Your task to perform on an android device: Open eBay Image 0: 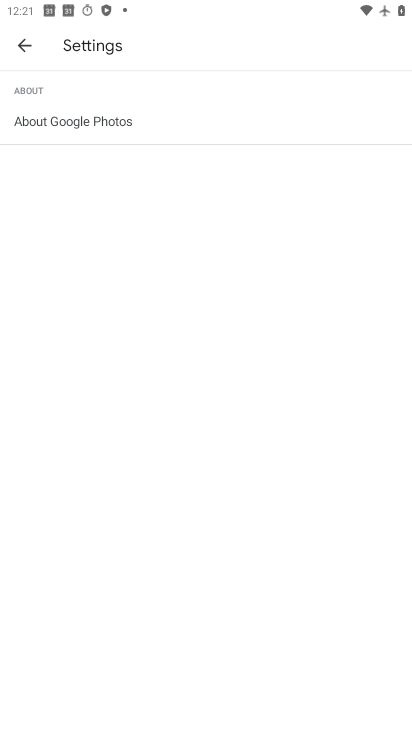
Step 0: press home button
Your task to perform on an android device: Open eBay Image 1: 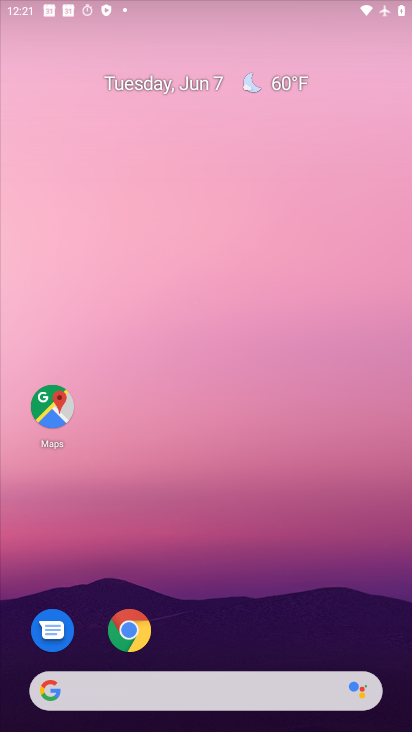
Step 1: drag from (391, 643) to (247, 116)
Your task to perform on an android device: Open eBay Image 2: 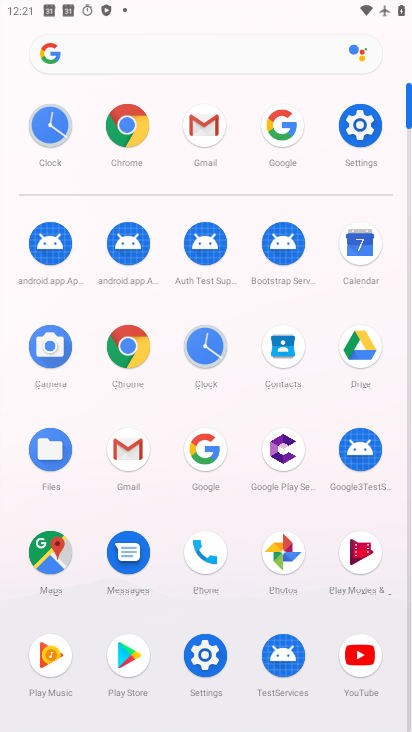
Step 2: click (203, 459)
Your task to perform on an android device: Open eBay Image 3: 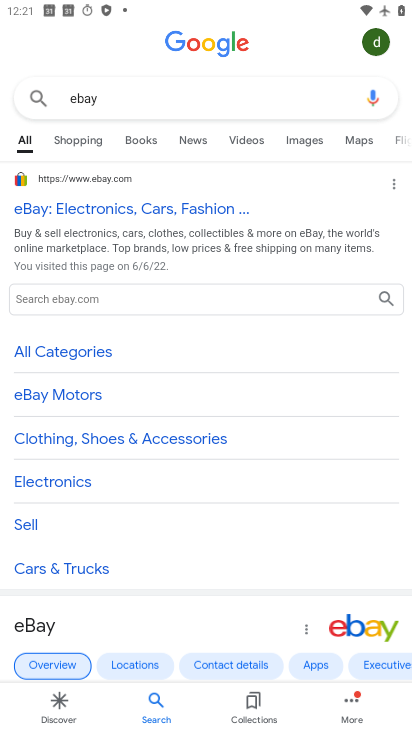
Step 3: task complete